Your task to perform on an android device: Open ESPN.com Image 0: 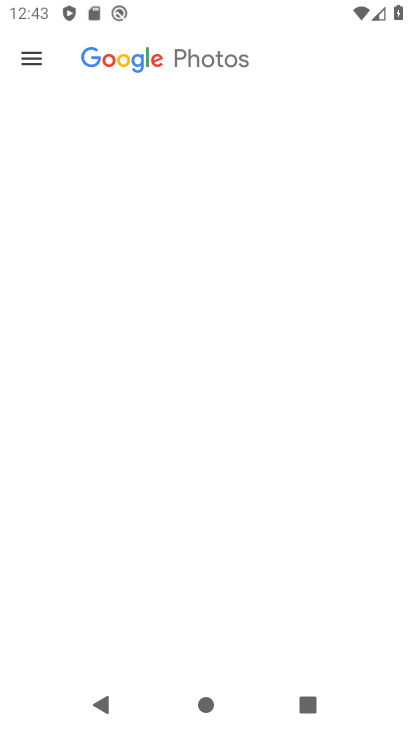
Step 0: press home button
Your task to perform on an android device: Open ESPN.com Image 1: 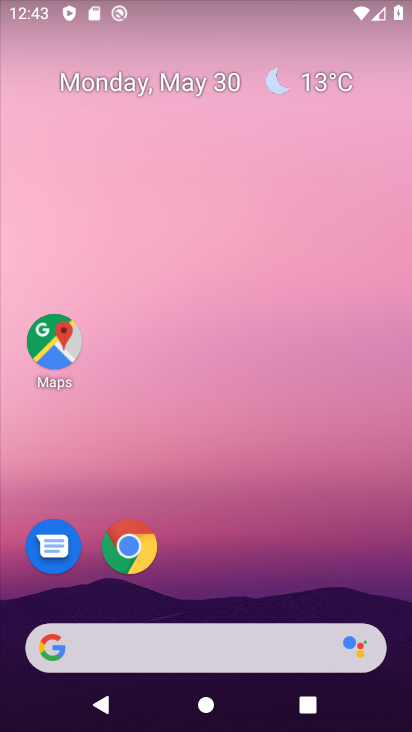
Step 1: click (40, 649)
Your task to perform on an android device: Open ESPN.com Image 2: 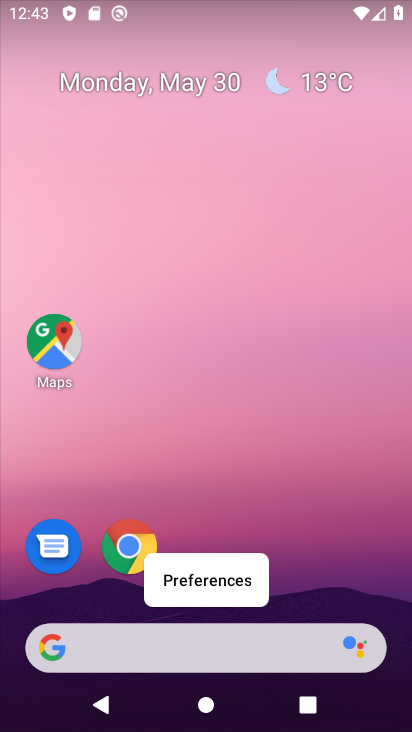
Step 2: click (46, 650)
Your task to perform on an android device: Open ESPN.com Image 3: 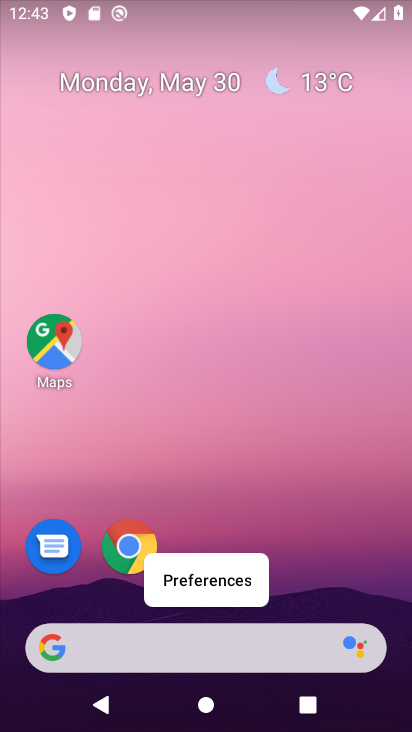
Step 3: click (62, 649)
Your task to perform on an android device: Open ESPN.com Image 4: 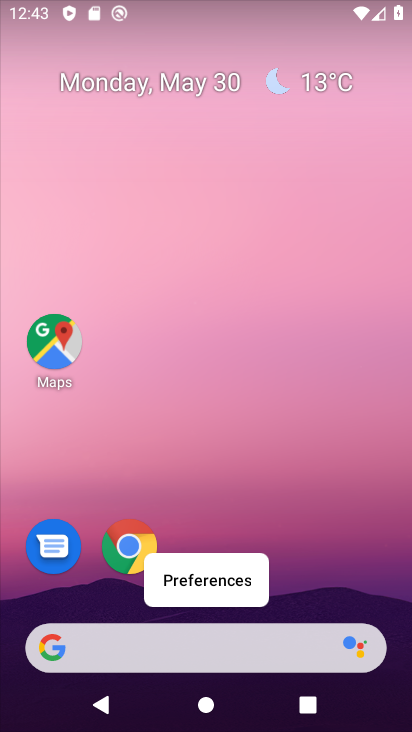
Step 4: click (63, 644)
Your task to perform on an android device: Open ESPN.com Image 5: 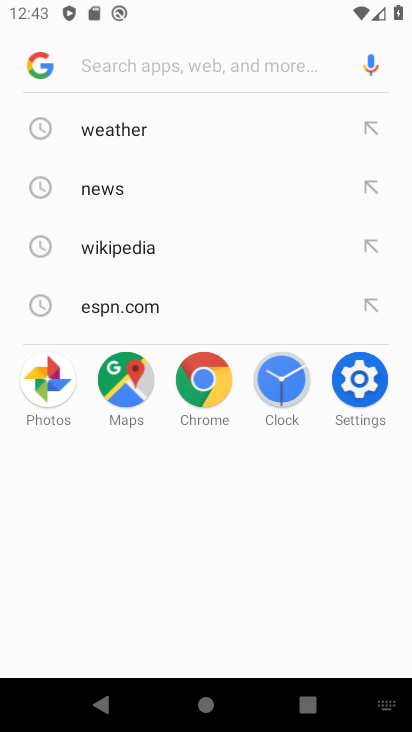
Step 5: click (114, 310)
Your task to perform on an android device: Open ESPN.com Image 6: 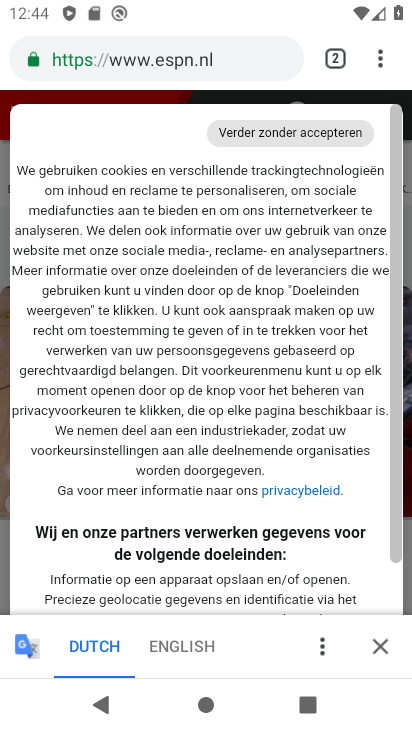
Step 6: task complete